Your task to perform on an android device: check the backup settings in the google photos Image 0: 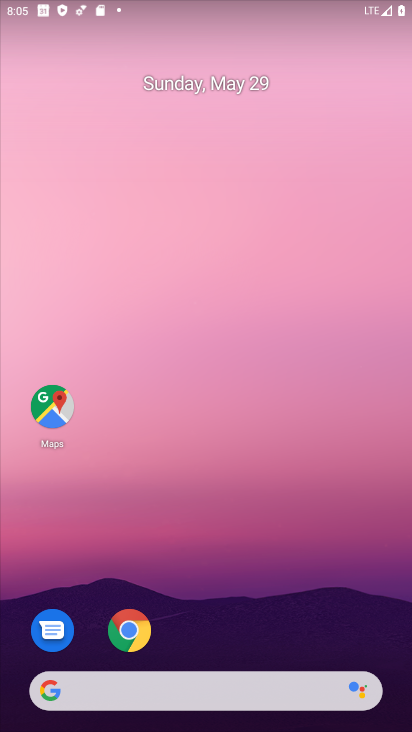
Step 0: drag from (224, 659) to (250, 48)
Your task to perform on an android device: check the backup settings in the google photos Image 1: 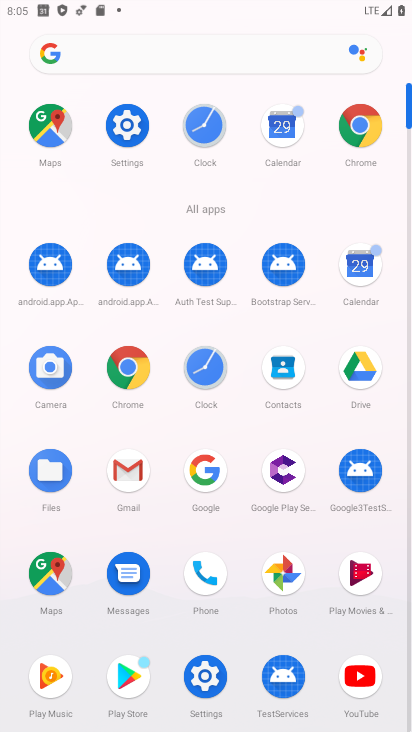
Step 1: click (283, 556)
Your task to perform on an android device: check the backup settings in the google photos Image 2: 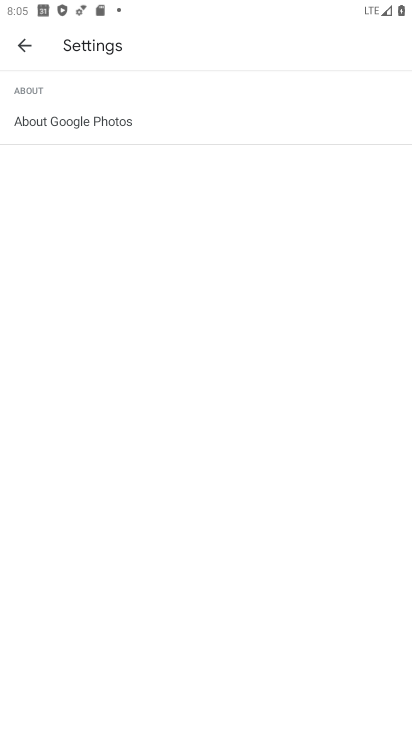
Step 2: click (19, 44)
Your task to perform on an android device: check the backup settings in the google photos Image 3: 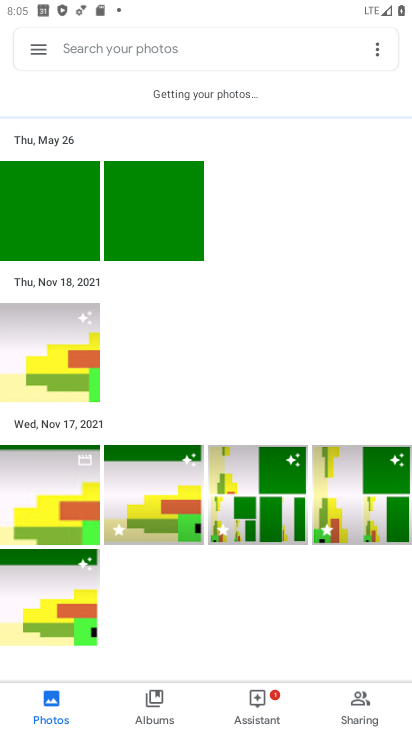
Step 3: click (19, 44)
Your task to perform on an android device: check the backup settings in the google photos Image 4: 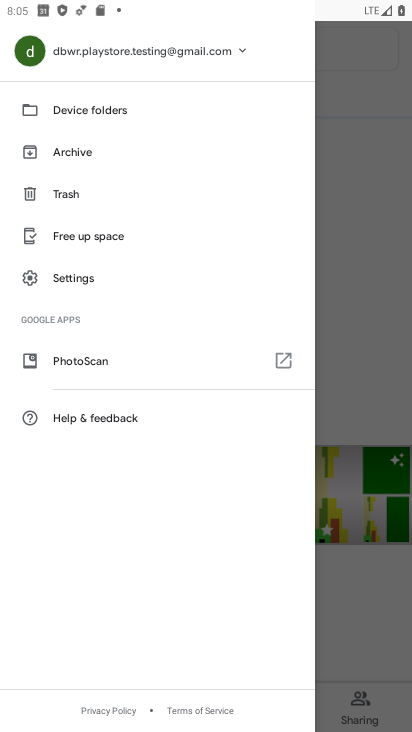
Step 4: click (51, 51)
Your task to perform on an android device: check the backup settings in the google photos Image 5: 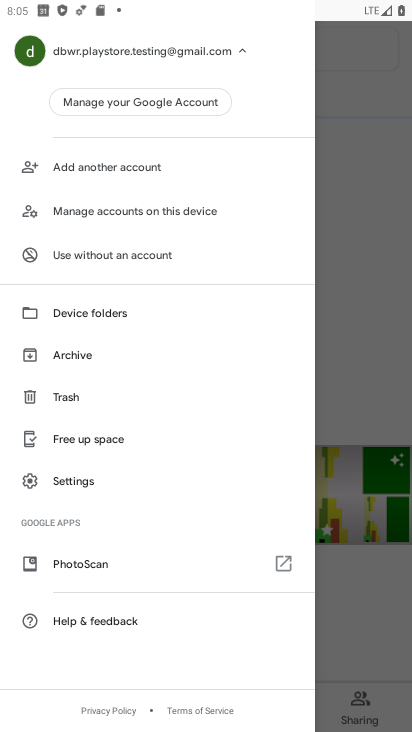
Step 5: click (97, 484)
Your task to perform on an android device: check the backup settings in the google photos Image 6: 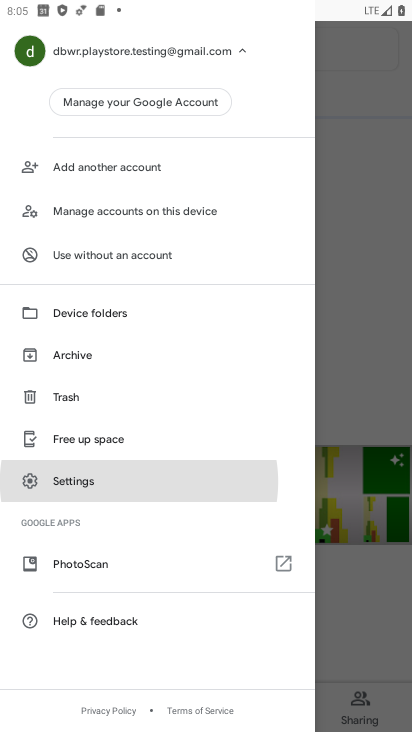
Step 6: click (97, 484)
Your task to perform on an android device: check the backup settings in the google photos Image 7: 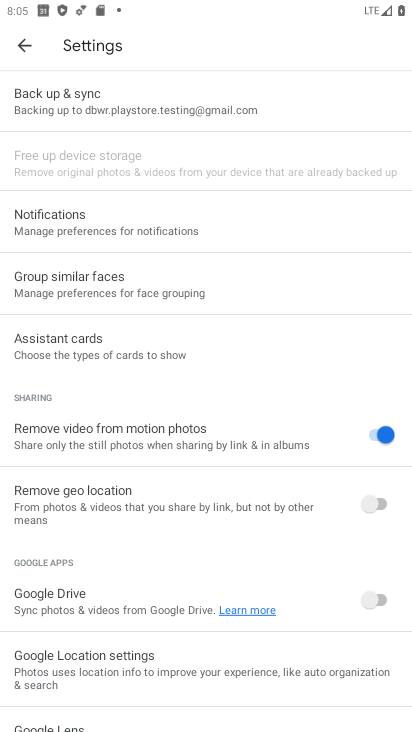
Step 7: click (97, 103)
Your task to perform on an android device: check the backup settings in the google photos Image 8: 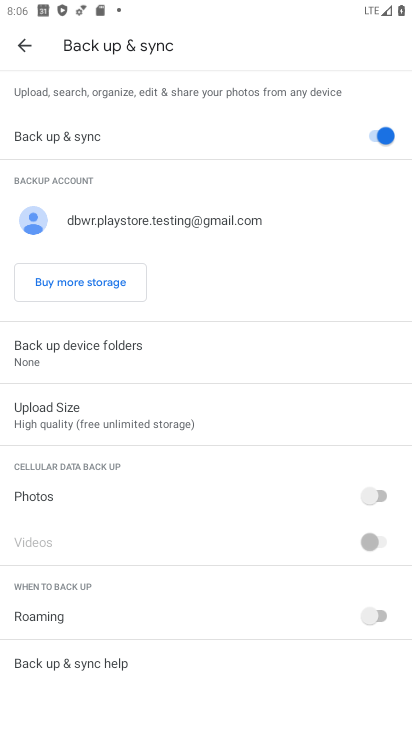
Step 8: task complete